Your task to perform on an android device: find photos in the google photos app Image 0: 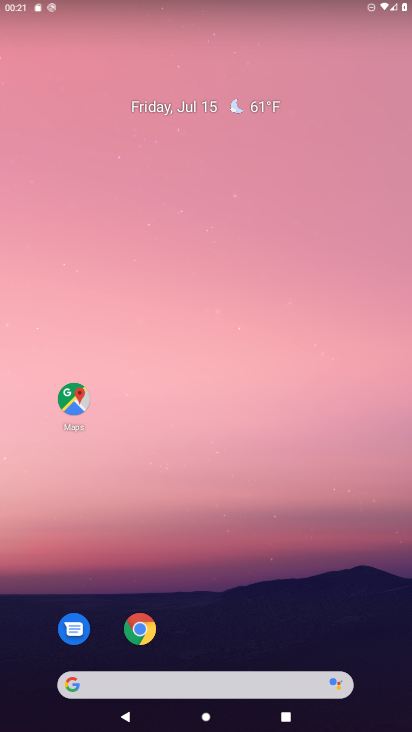
Step 0: drag from (183, 600) to (194, 89)
Your task to perform on an android device: find photos in the google photos app Image 1: 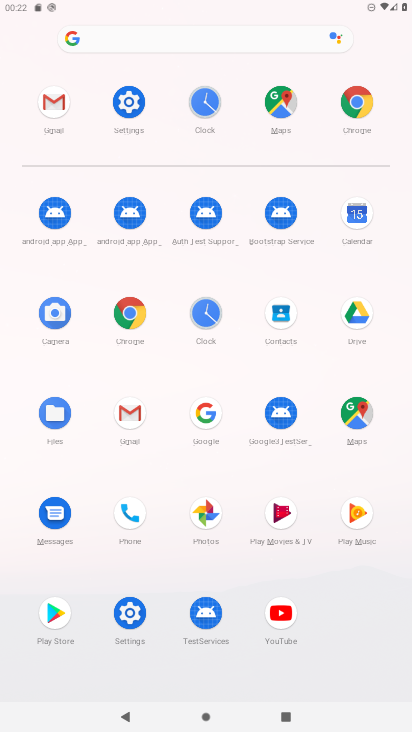
Step 1: click (214, 518)
Your task to perform on an android device: find photos in the google photos app Image 2: 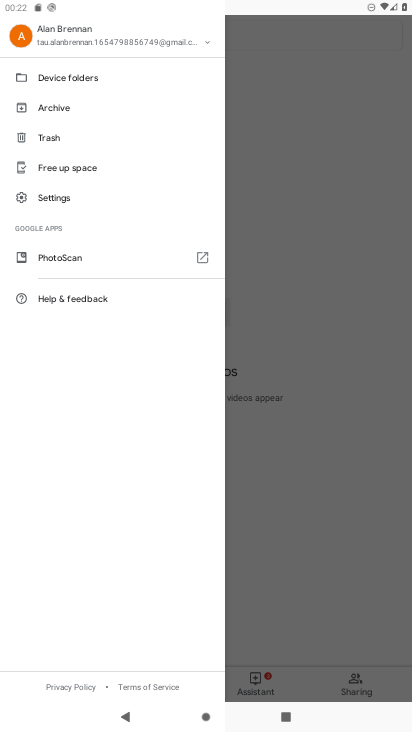
Step 2: click (326, 278)
Your task to perform on an android device: find photos in the google photos app Image 3: 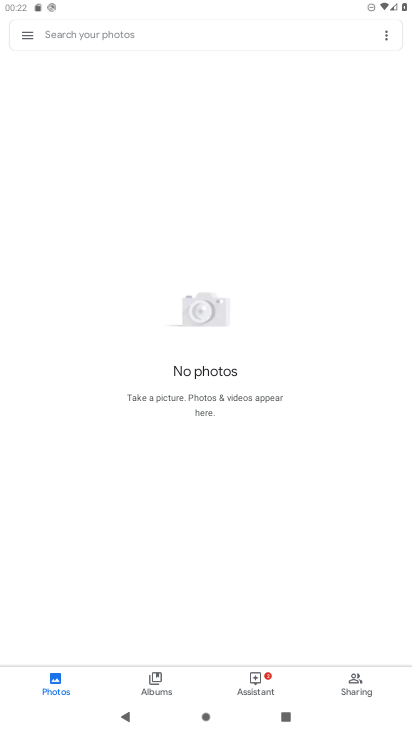
Step 3: task complete